Your task to perform on an android device: clear history in the chrome app Image 0: 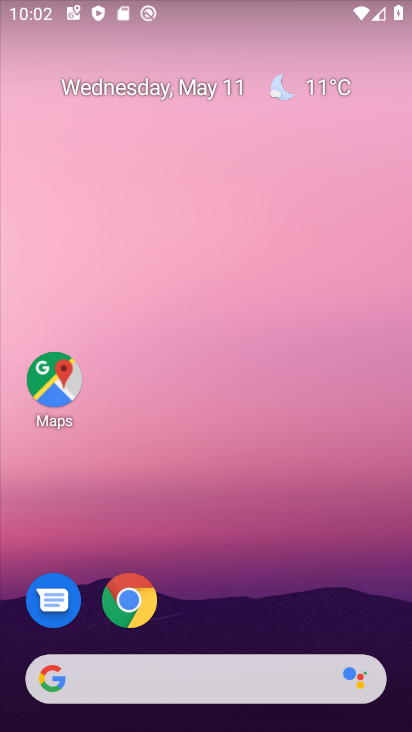
Step 0: click (125, 591)
Your task to perform on an android device: clear history in the chrome app Image 1: 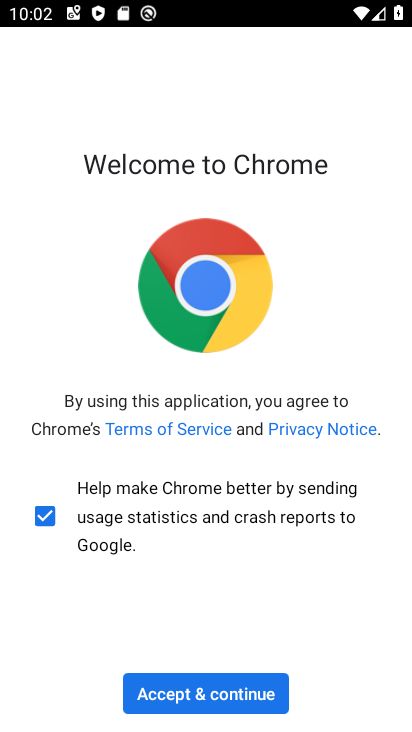
Step 1: click (247, 705)
Your task to perform on an android device: clear history in the chrome app Image 2: 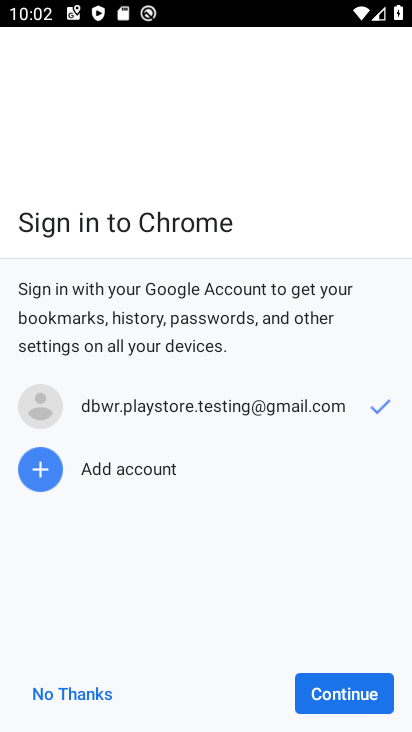
Step 2: click (322, 694)
Your task to perform on an android device: clear history in the chrome app Image 3: 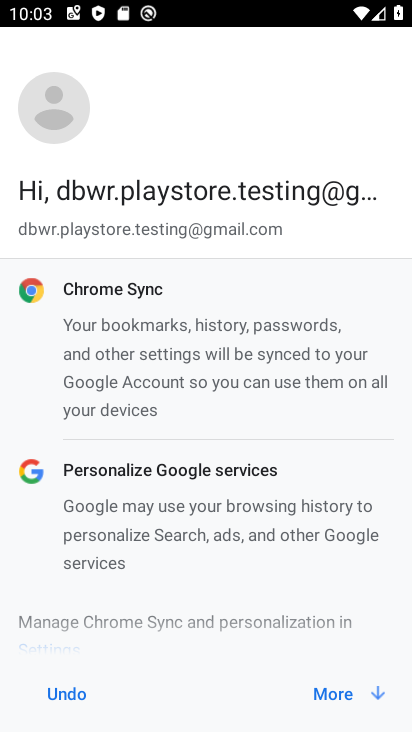
Step 3: click (335, 699)
Your task to perform on an android device: clear history in the chrome app Image 4: 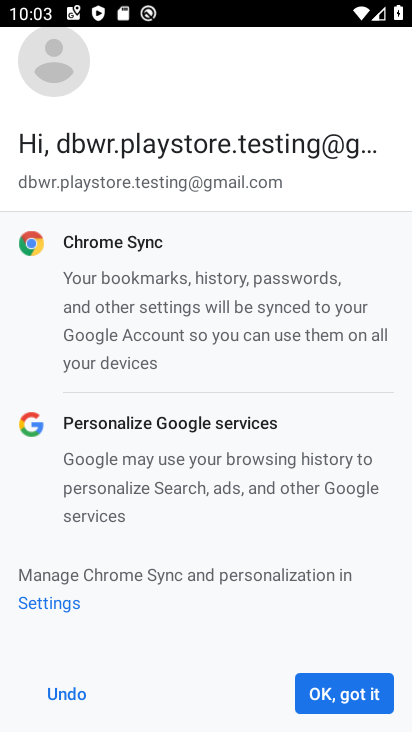
Step 4: click (336, 698)
Your task to perform on an android device: clear history in the chrome app Image 5: 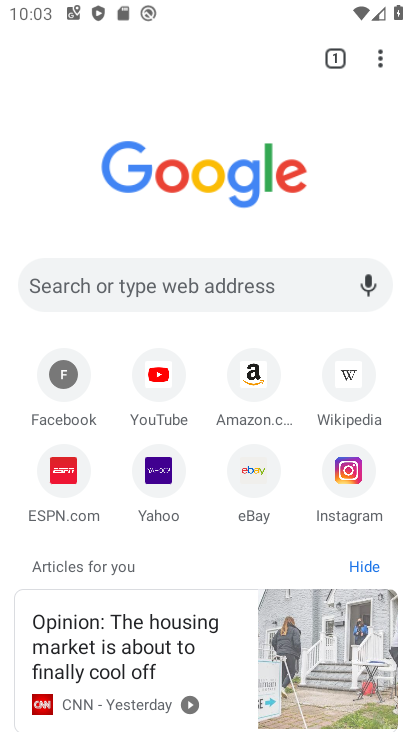
Step 5: click (224, 280)
Your task to perform on an android device: clear history in the chrome app Image 6: 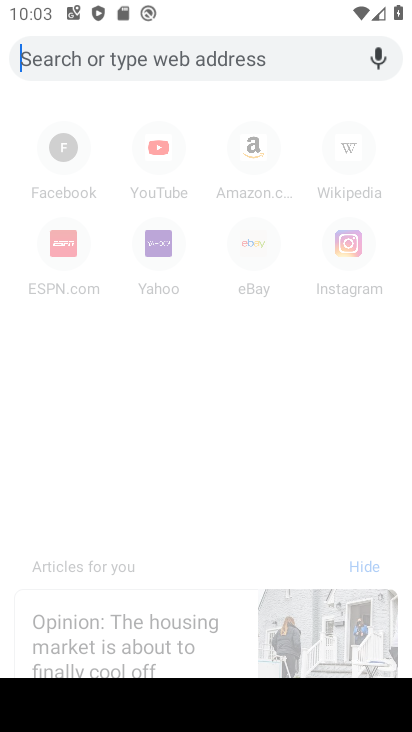
Step 6: click (207, 51)
Your task to perform on an android device: clear history in the chrome app Image 7: 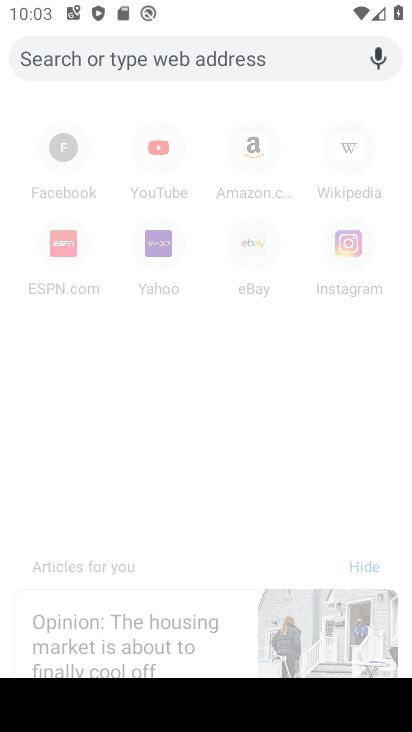
Step 7: press back button
Your task to perform on an android device: clear history in the chrome app Image 8: 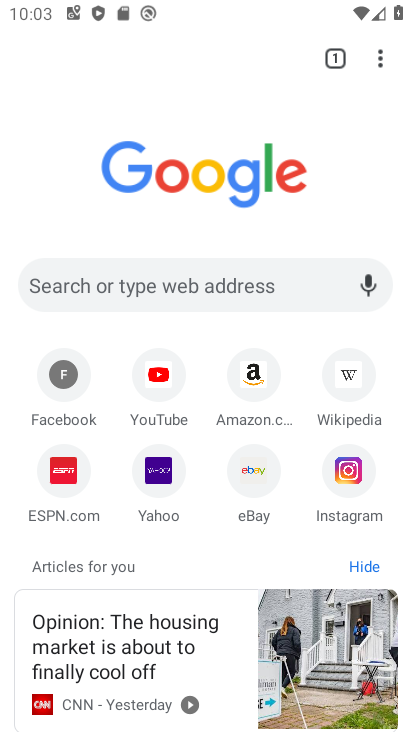
Step 8: click (385, 56)
Your task to perform on an android device: clear history in the chrome app Image 9: 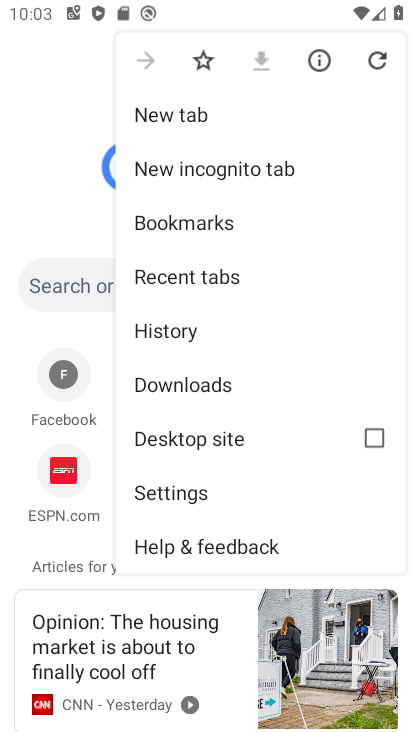
Step 9: click (282, 492)
Your task to perform on an android device: clear history in the chrome app Image 10: 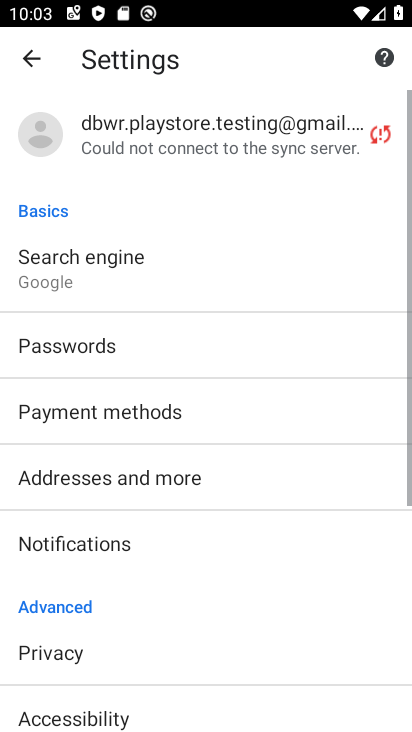
Step 10: drag from (278, 572) to (312, 198)
Your task to perform on an android device: clear history in the chrome app Image 11: 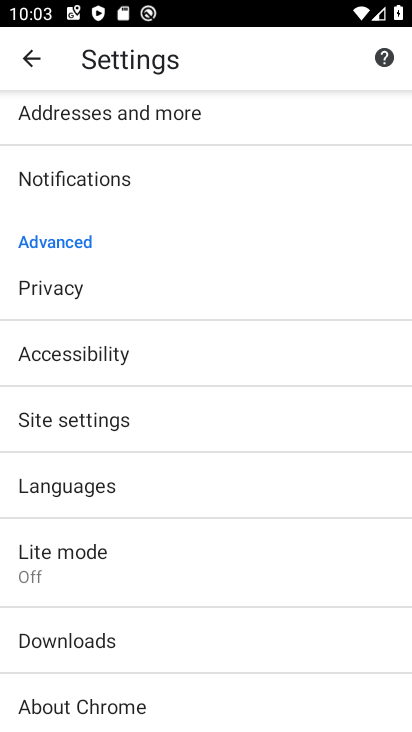
Step 11: drag from (278, 566) to (304, 186)
Your task to perform on an android device: clear history in the chrome app Image 12: 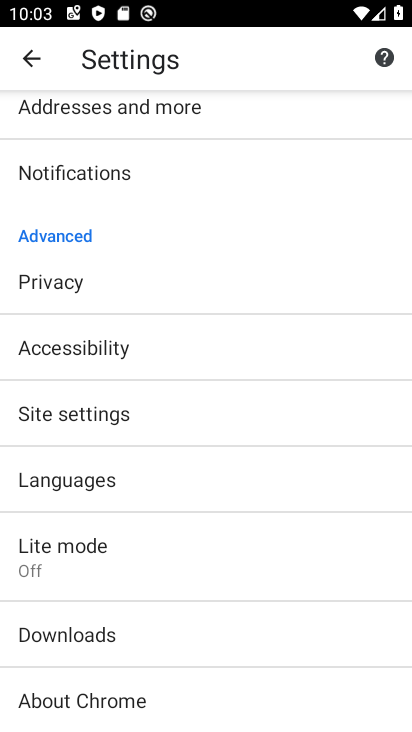
Step 12: click (302, 407)
Your task to perform on an android device: clear history in the chrome app Image 13: 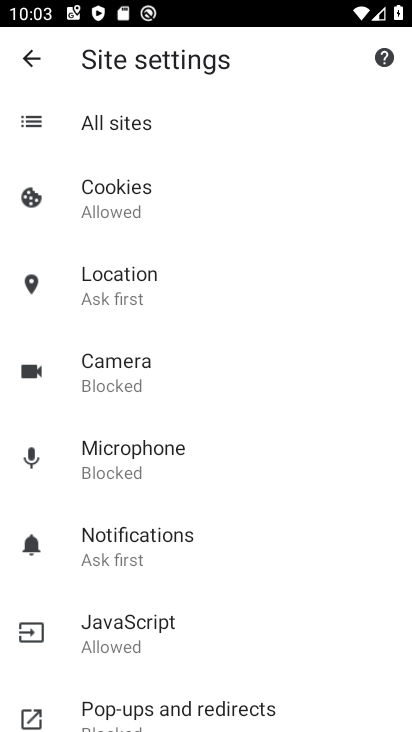
Step 13: drag from (265, 584) to (337, 210)
Your task to perform on an android device: clear history in the chrome app Image 14: 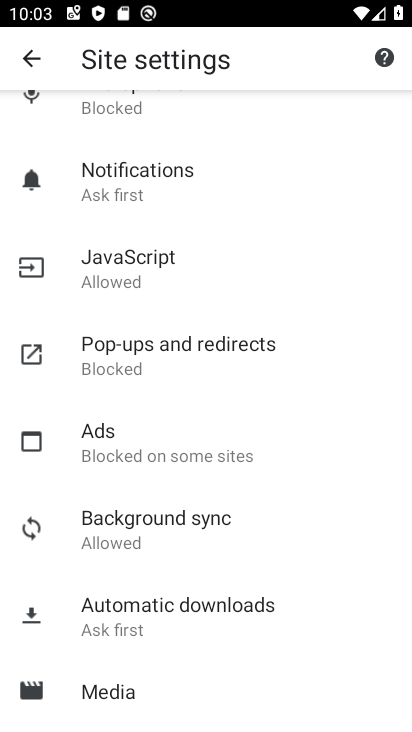
Step 14: drag from (287, 511) to (365, 196)
Your task to perform on an android device: clear history in the chrome app Image 15: 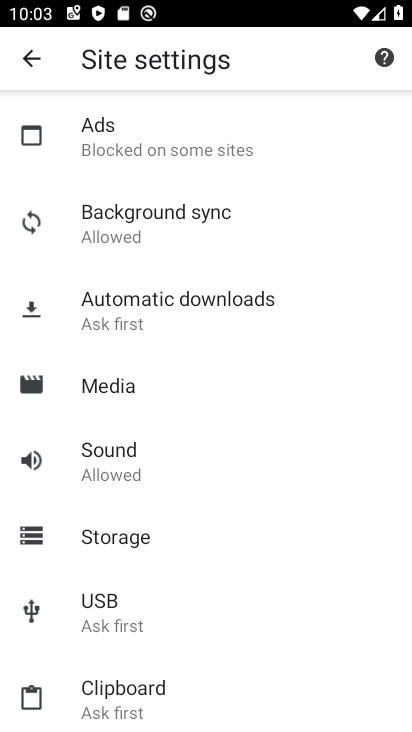
Step 15: drag from (259, 508) to (311, 166)
Your task to perform on an android device: clear history in the chrome app Image 16: 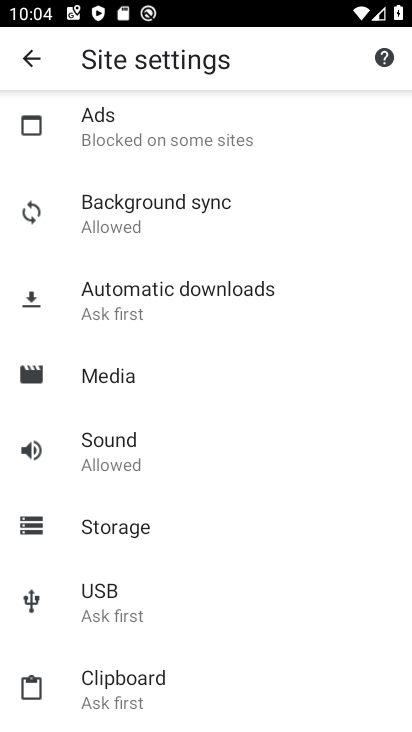
Step 16: drag from (207, 653) to (211, 189)
Your task to perform on an android device: clear history in the chrome app Image 17: 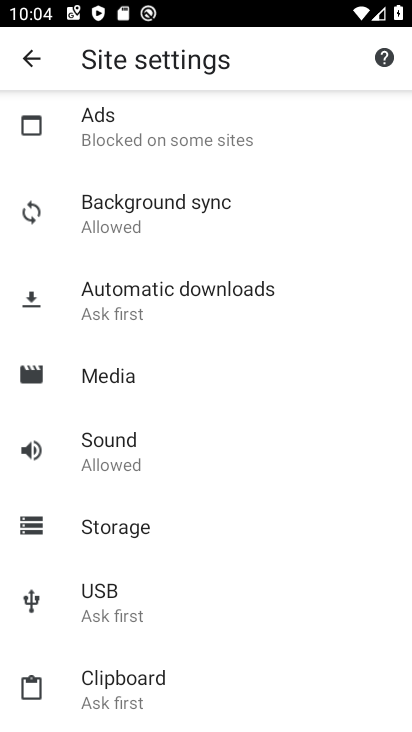
Step 17: drag from (256, 206) to (305, 679)
Your task to perform on an android device: clear history in the chrome app Image 18: 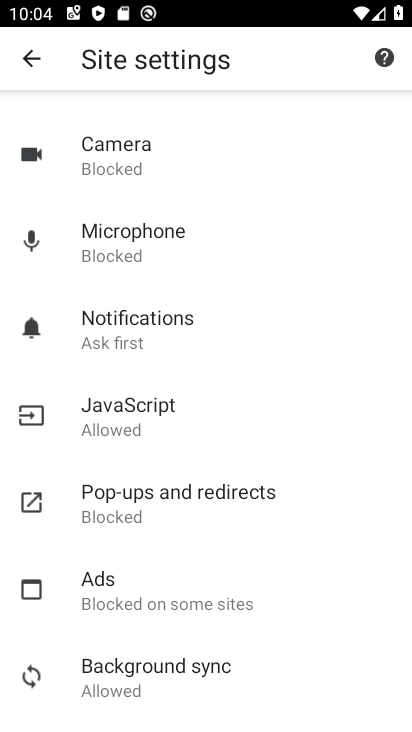
Step 18: drag from (278, 248) to (296, 646)
Your task to perform on an android device: clear history in the chrome app Image 19: 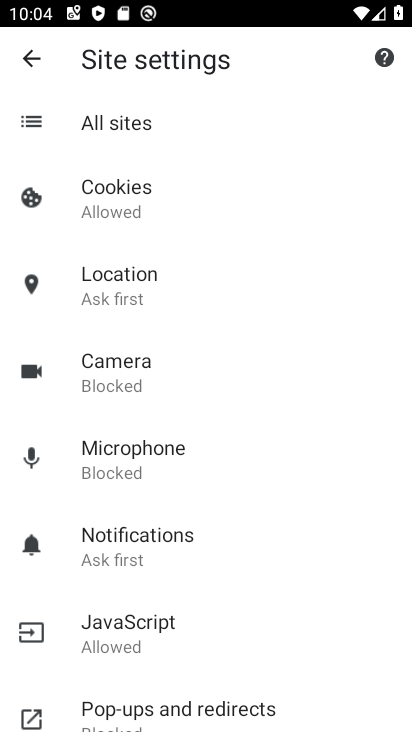
Step 19: click (29, 58)
Your task to perform on an android device: clear history in the chrome app Image 20: 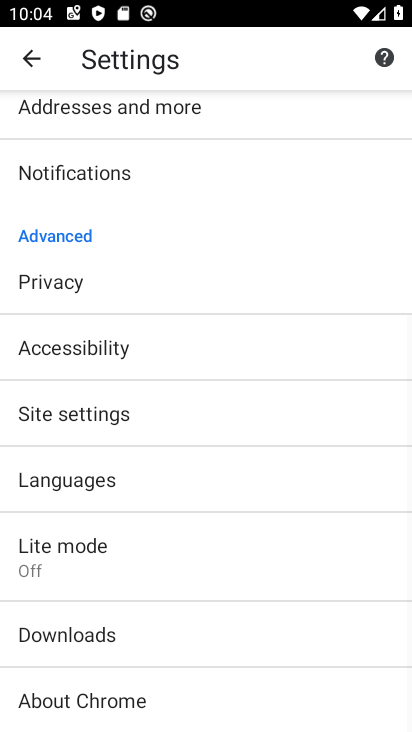
Step 20: click (29, 58)
Your task to perform on an android device: clear history in the chrome app Image 21: 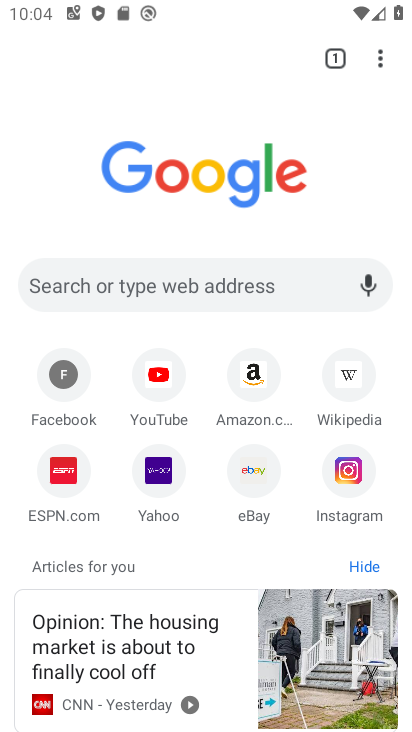
Step 21: click (386, 55)
Your task to perform on an android device: clear history in the chrome app Image 22: 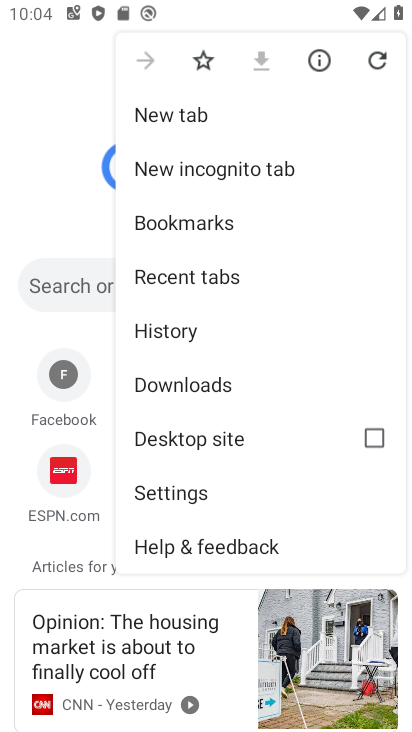
Step 22: click (183, 331)
Your task to perform on an android device: clear history in the chrome app Image 23: 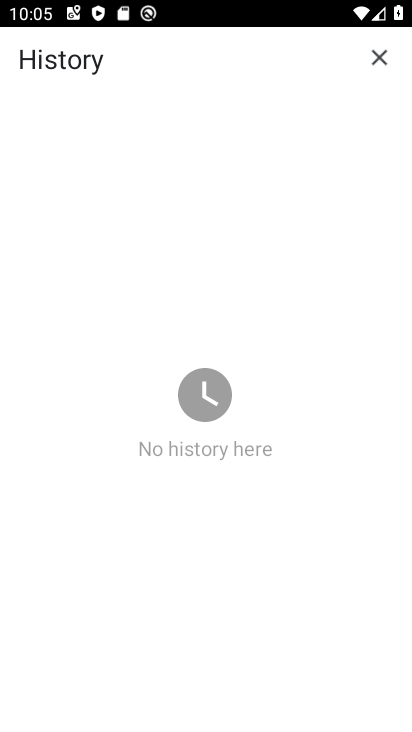
Step 23: task complete